Your task to perform on an android device: move a message to another label in the gmail app Image 0: 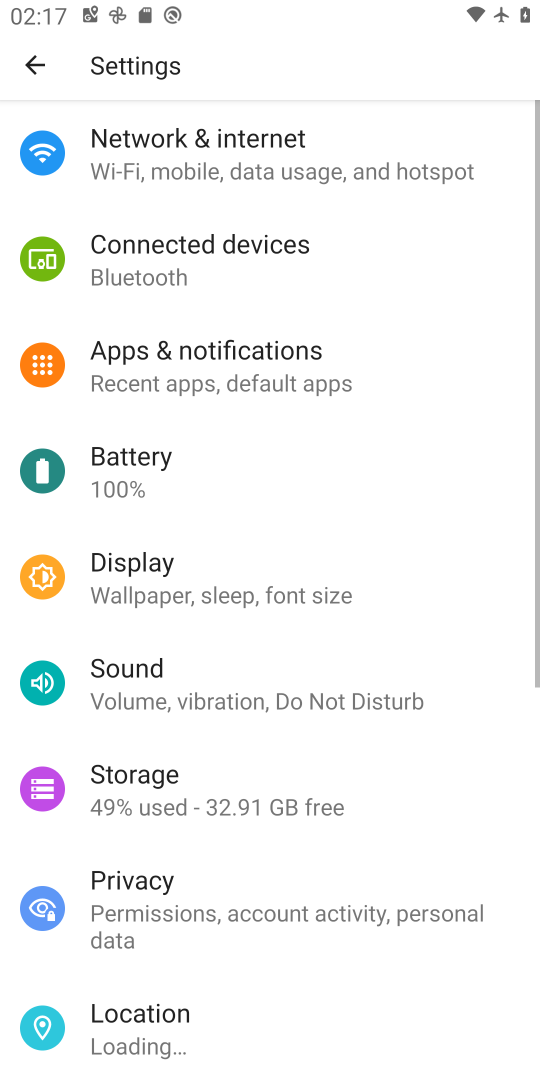
Step 0: press home button
Your task to perform on an android device: move a message to another label in the gmail app Image 1: 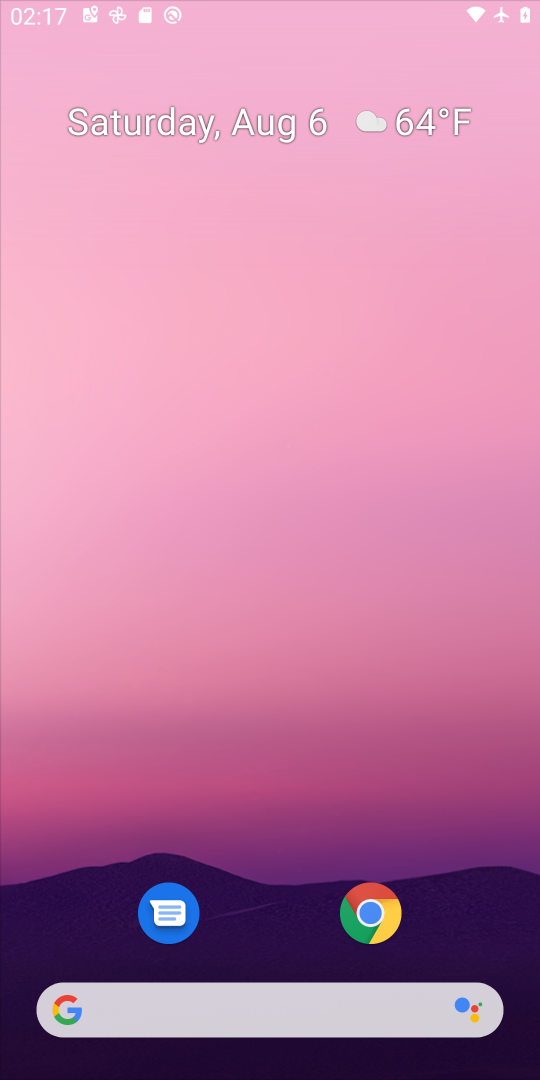
Step 1: press home button
Your task to perform on an android device: move a message to another label in the gmail app Image 2: 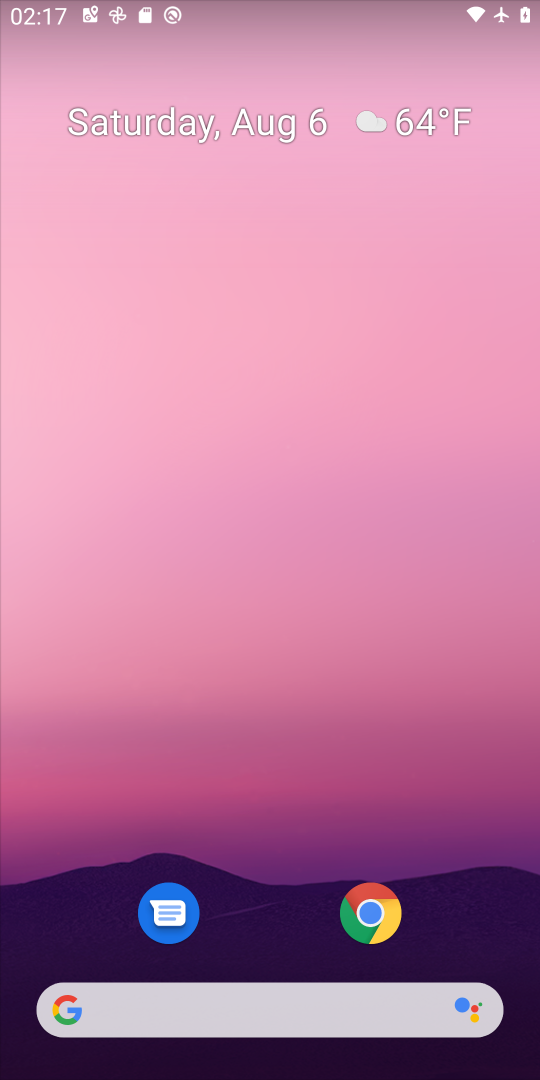
Step 2: drag from (481, 941) to (473, 402)
Your task to perform on an android device: move a message to another label in the gmail app Image 3: 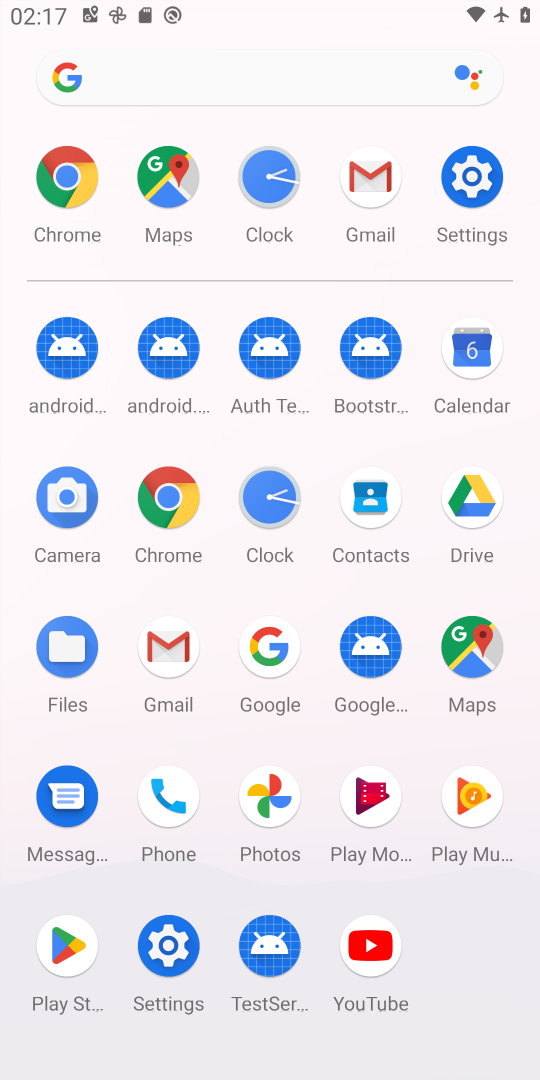
Step 3: click (173, 648)
Your task to perform on an android device: move a message to another label in the gmail app Image 4: 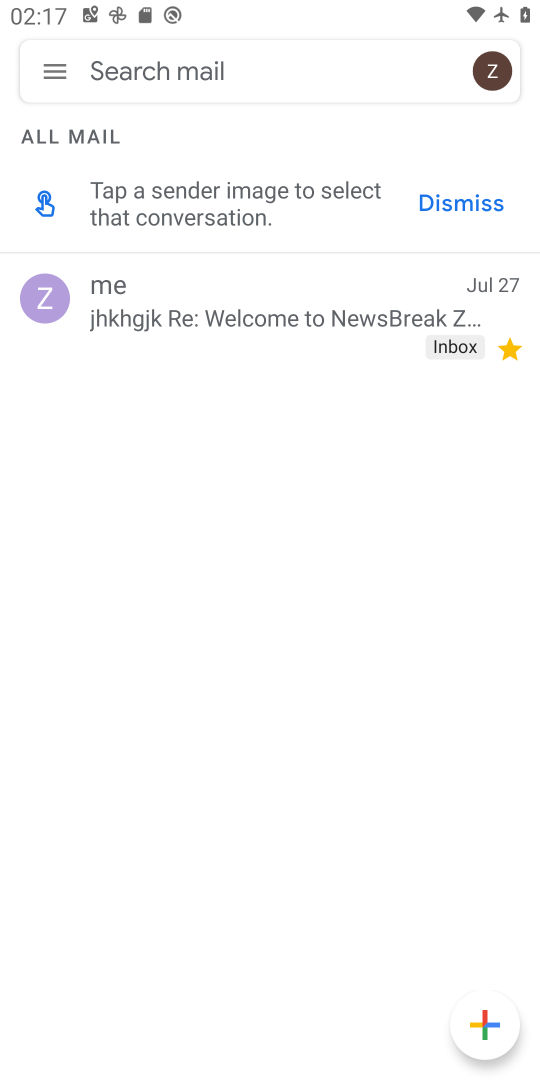
Step 4: click (304, 304)
Your task to perform on an android device: move a message to another label in the gmail app Image 5: 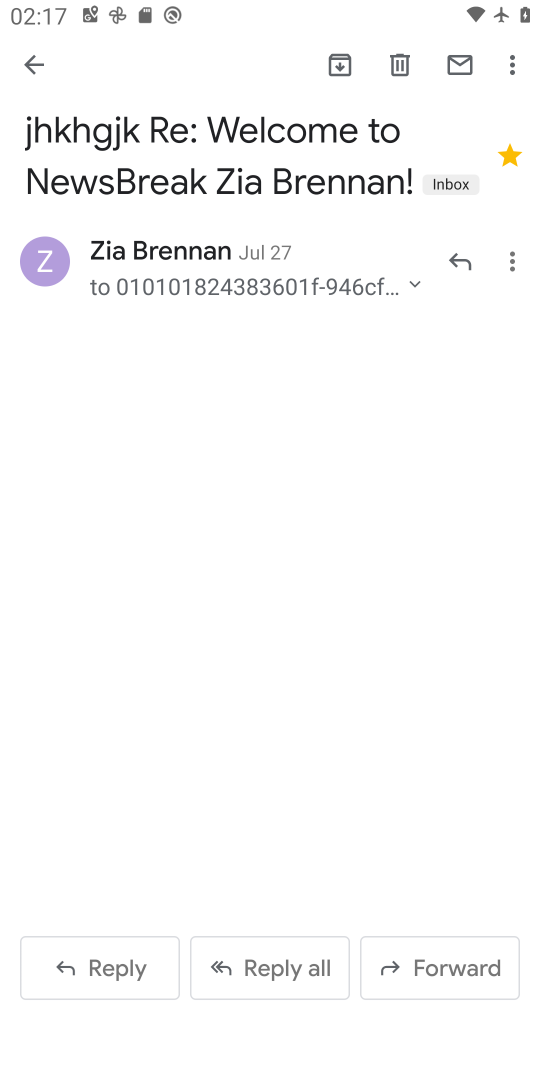
Step 5: click (508, 57)
Your task to perform on an android device: move a message to another label in the gmail app Image 6: 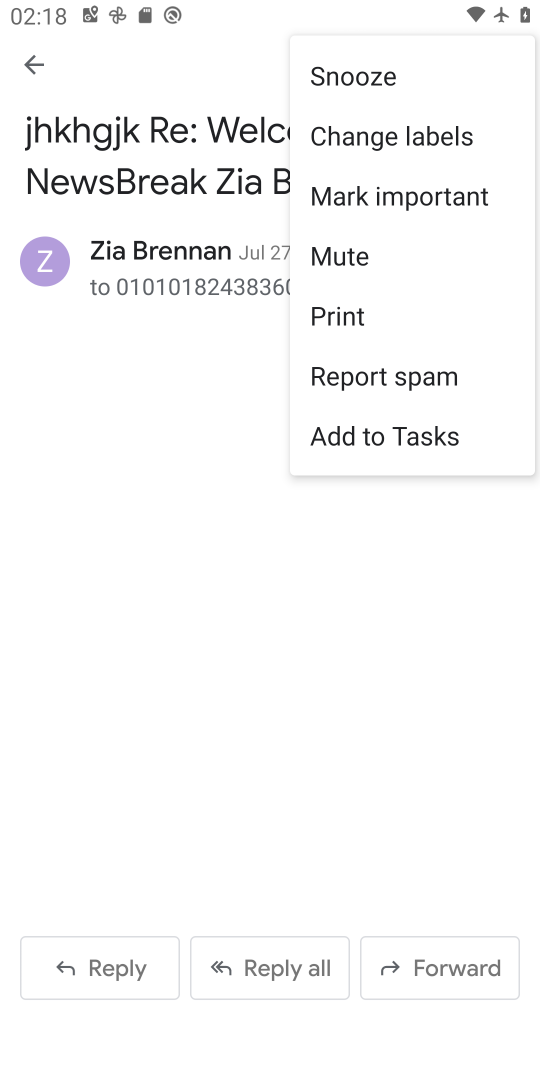
Step 6: task complete